Your task to perform on an android device: toggle wifi Image 0: 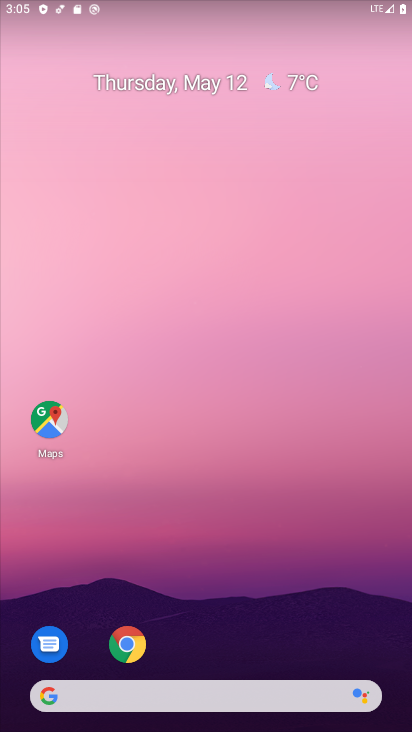
Step 0: drag from (303, 496) to (231, 171)
Your task to perform on an android device: toggle wifi Image 1: 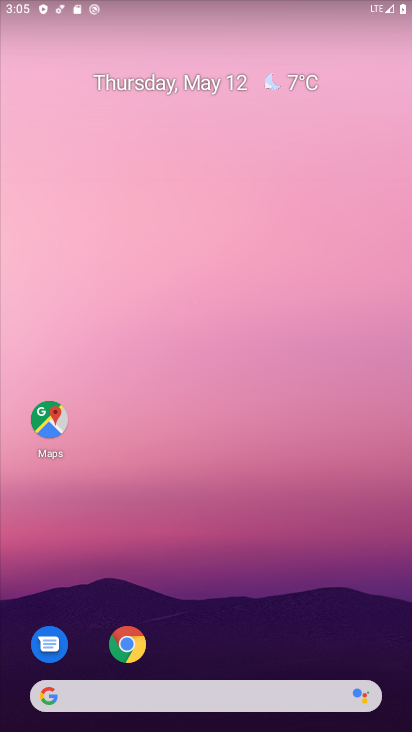
Step 1: drag from (247, 597) to (197, 134)
Your task to perform on an android device: toggle wifi Image 2: 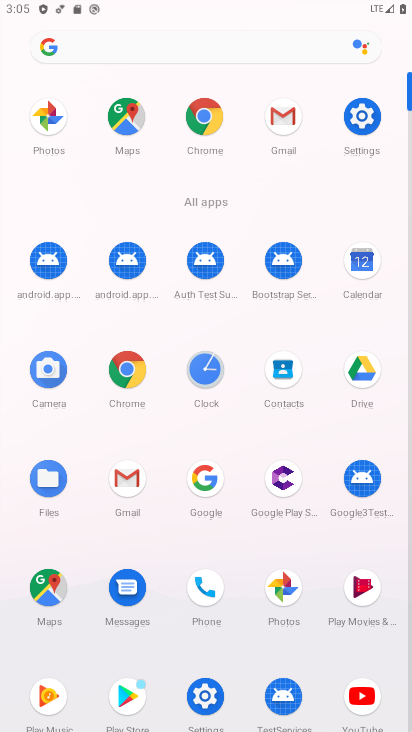
Step 2: click (372, 116)
Your task to perform on an android device: toggle wifi Image 3: 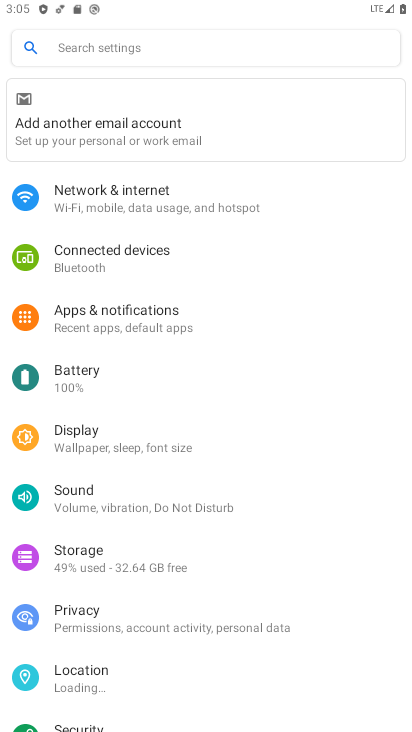
Step 3: click (192, 182)
Your task to perform on an android device: toggle wifi Image 4: 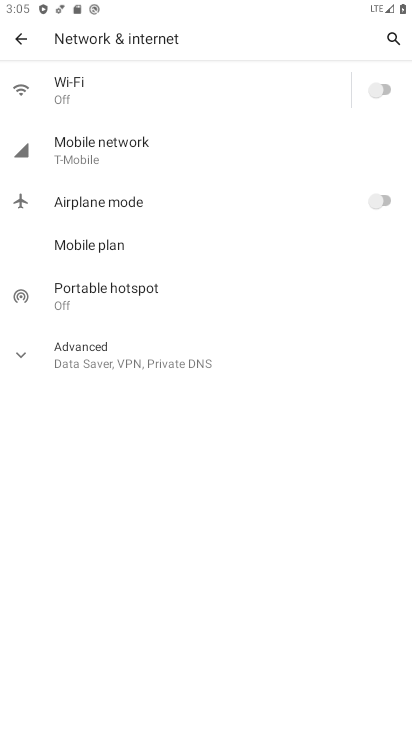
Step 4: click (93, 93)
Your task to perform on an android device: toggle wifi Image 5: 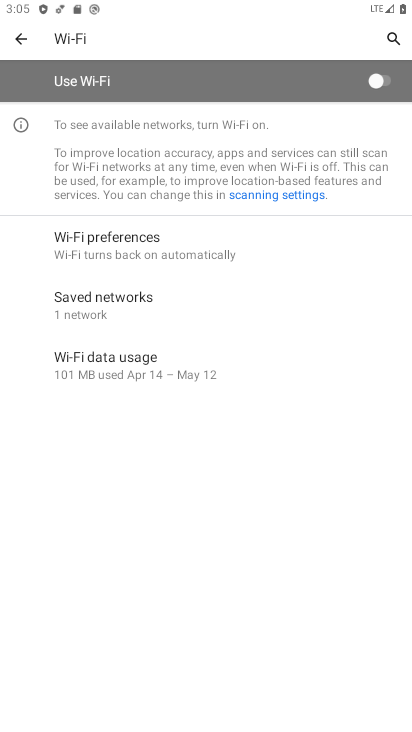
Step 5: click (364, 98)
Your task to perform on an android device: toggle wifi Image 6: 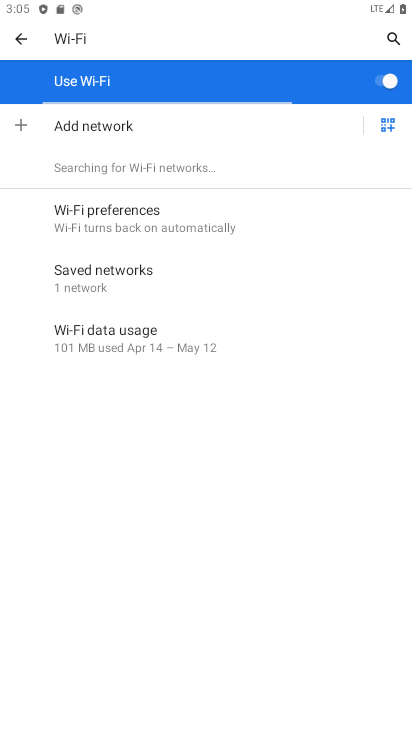
Step 6: task complete